Your task to perform on an android device: What is the news today? Image 0: 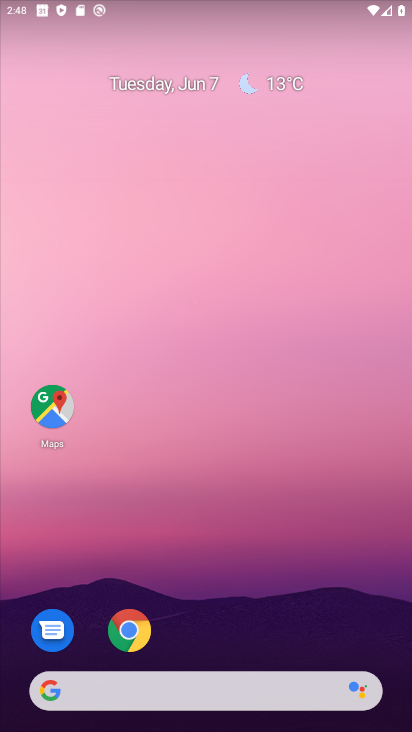
Step 0: drag from (6, 315) to (411, 274)
Your task to perform on an android device: What is the news today? Image 1: 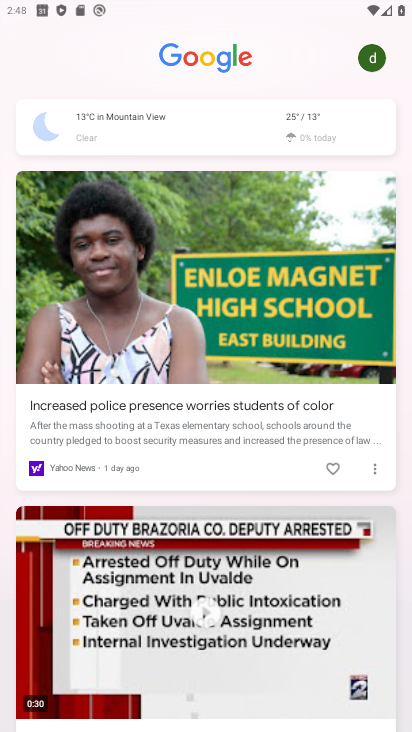
Step 1: task complete